Your task to perform on an android device: turn off notifications settings in the gmail app Image 0: 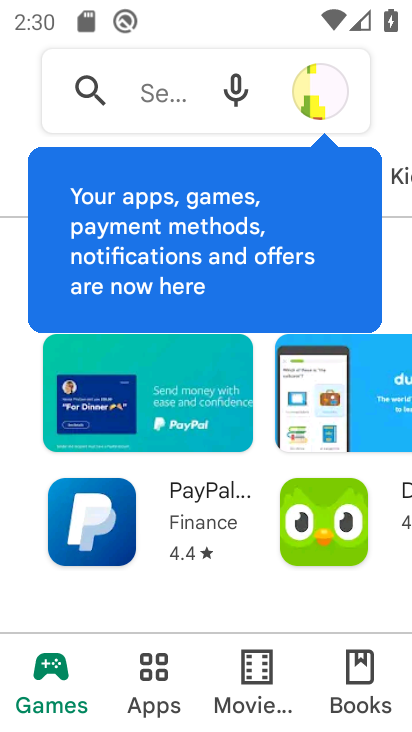
Step 0: press back button
Your task to perform on an android device: turn off notifications settings in the gmail app Image 1: 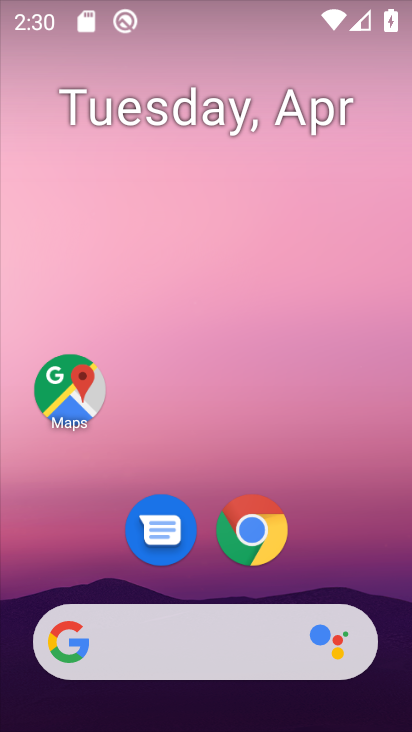
Step 1: drag from (208, 716) to (211, 61)
Your task to perform on an android device: turn off notifications settings in the gmail app Image 2: 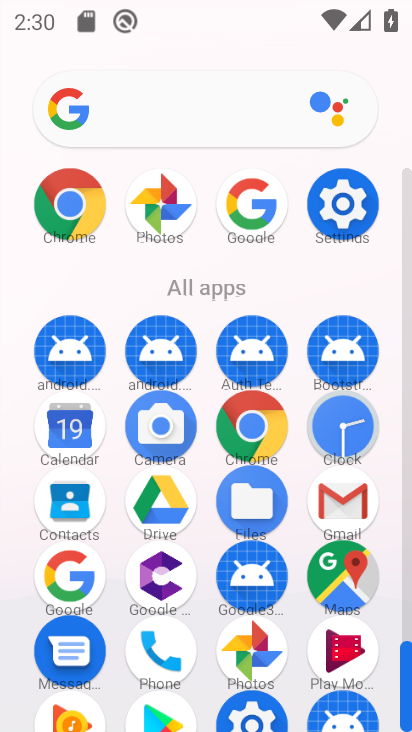
Step 2: click (335, 500)
Your task to perform on an android device: turn off notifications settings in the gmail app Image 3: 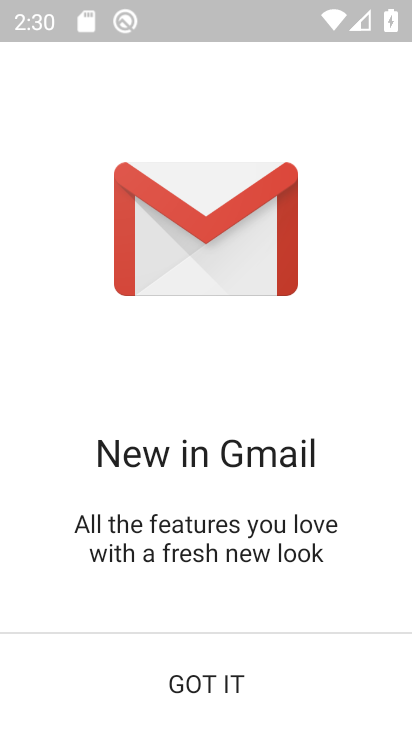
Step 3: click (208, 679)
Your task to perform on an android device: turn off notifications settings in the gmail app Image 4: 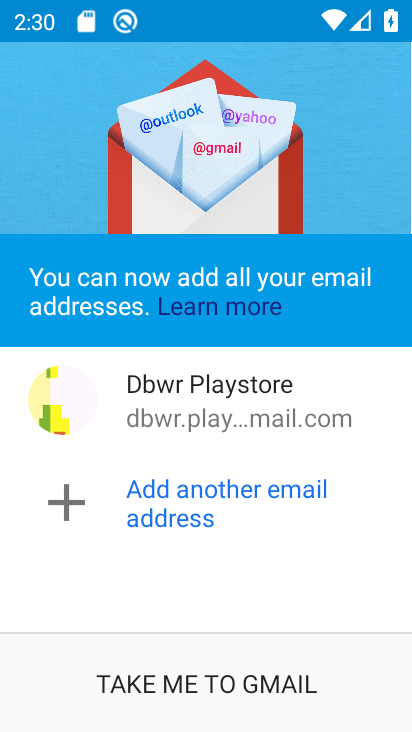
Step 4: click (208, 679)
Your task to perform on an android device: turn off notifications settings in the gmail app Image 5: 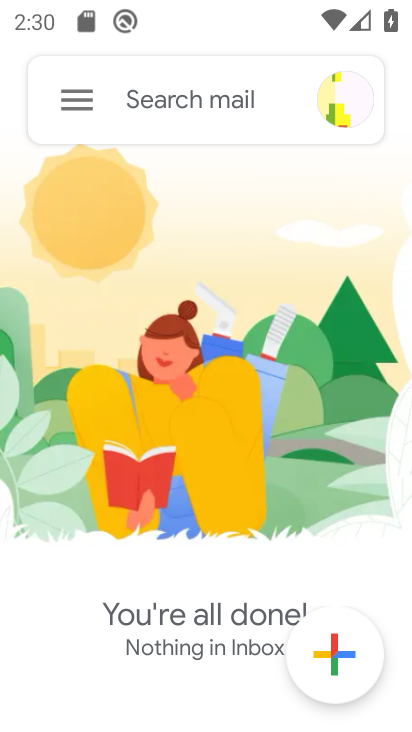
Step 5: click (73, 102)
Your task to perform on an android device: turn off notifications settings in the gmail app Image 6: 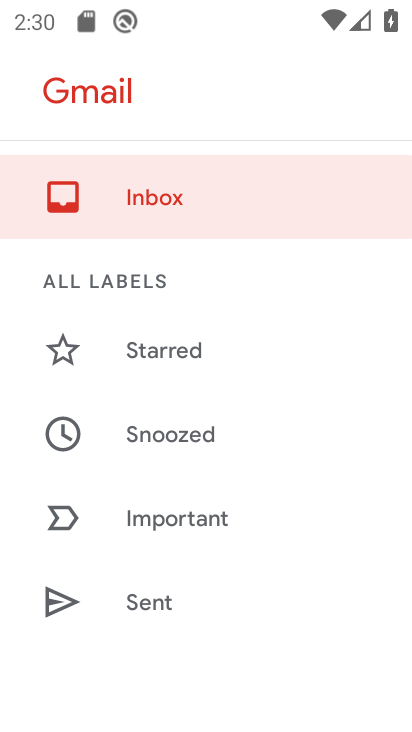
Step 6: drag from (164, 544) to (157, 111)
Your task to perform on an android device: turn off notifications settings in the gmail app Image 7: 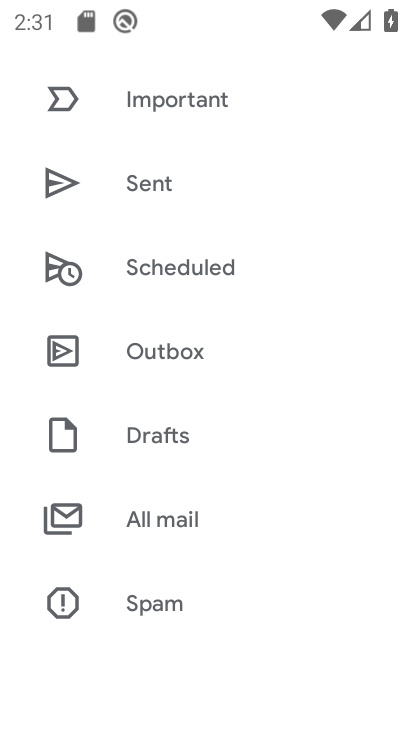
Step 7: drag from (174, 608) to (166, 114)
Your task to perform on an android device: turn off notifications settings in the gmail app Image 8: 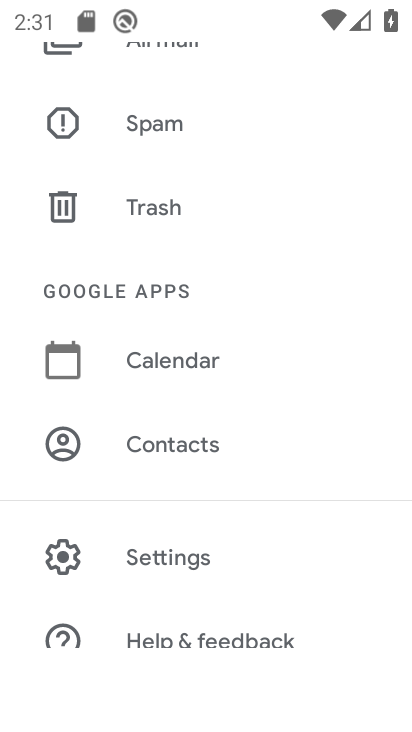
Step 8: click (163, 548)
Your task to perform on an android device: turn off notifications settings in the gmail app Image 9: 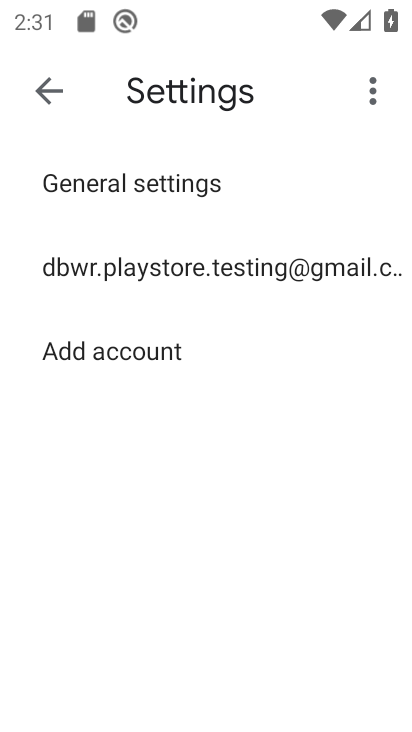
Step 9: click (187, 266)
Your task to perform on an android device: turn off notifications settings in the gmail app Image 10: 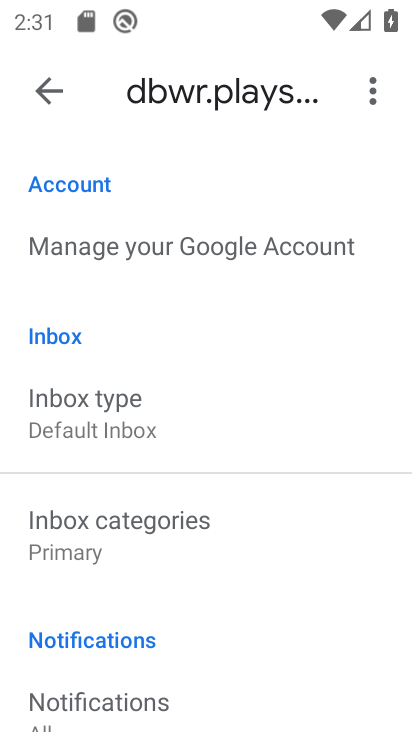
Step 10: click (107, 702)
Your task to perform on an android device: turn off notifications settings in the gmail app Image 11: 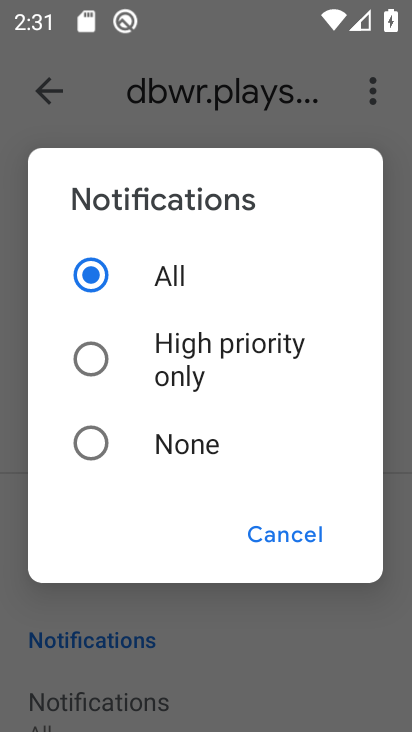
Step 11: click (88, 447)
Your task to perform on an android device: turn off notifications settings in the gmail app Image 12: 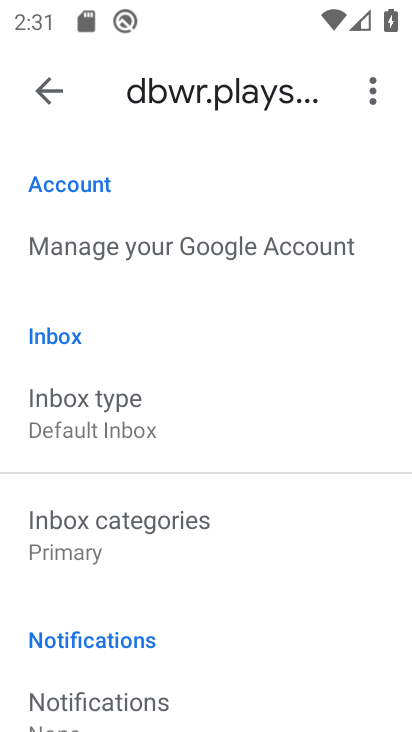
Step 12: task complete